Your task to perform on an android device: Open accessibility settings Image 0: 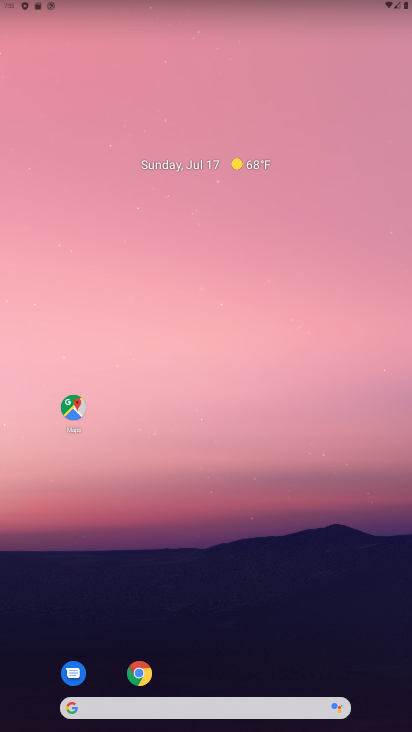
Step 0: drag from (276, 626) to (371, 45)
Your task to perform on an android device: Open accessibility settings Image 1: 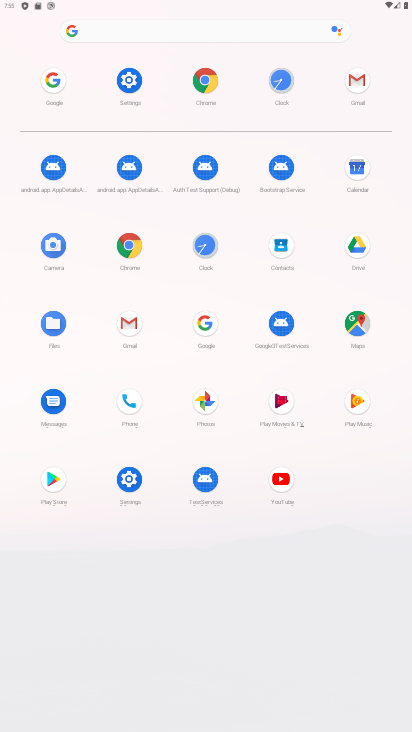
Step 1: click (135, 88)
Your task to perform on an android device: Open accessibility settings Image 2: 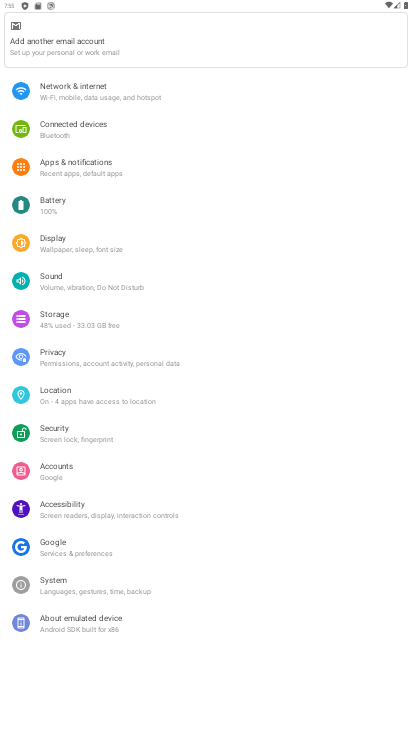
Step 2: click (79, 521)
Your task to perform on an android device: Open accessibility settings Image 3: 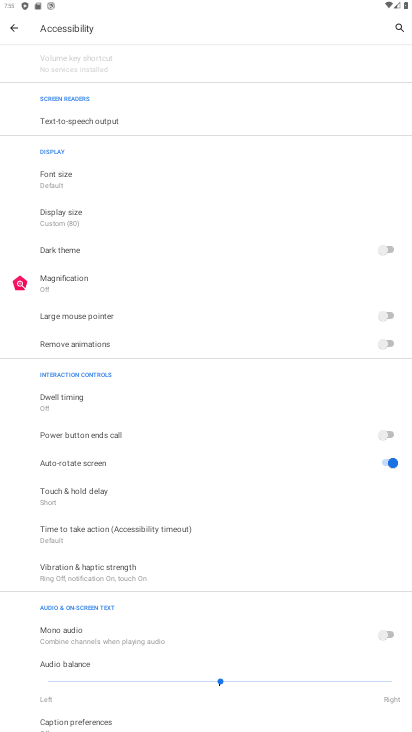
Step 3: task complete